Your task to perform on an android device: allow cookies in the chrome app Image 0: 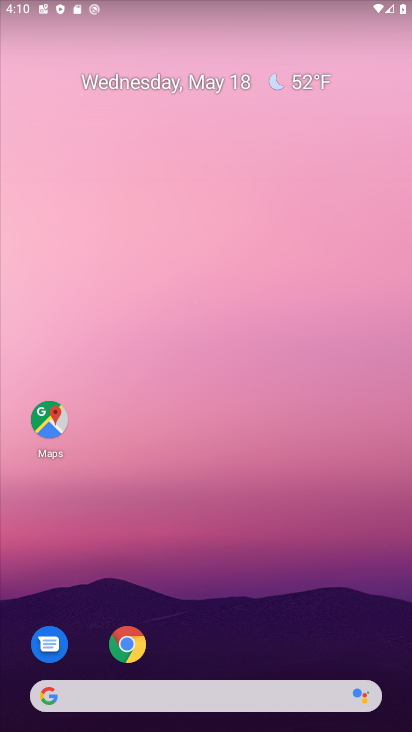
Step 0: click (135, 639)
Your task to perform on an android device: allow cookies in the chrome app Image 1: 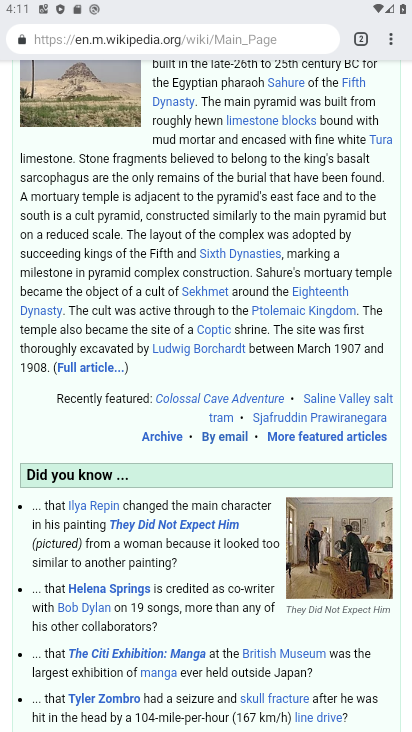
Step 1: click (387, 34)
Your task to perform on an android device: allow cookies in the chrome app Image 2: 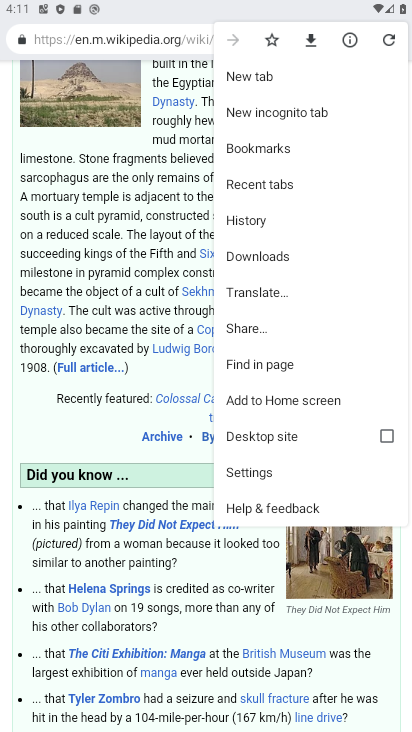
Step 2: click (222, 476)
Your task to perform on an android device: allow cookies in the chrome app Image 3: 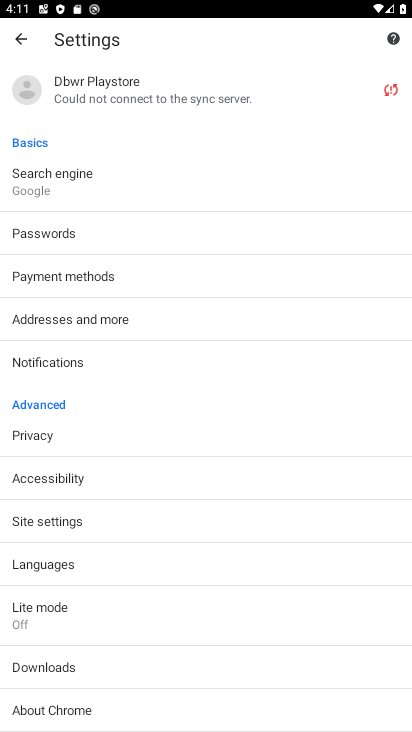
Step 3: drag from (152, 675) to (118, 250)
Your task to perform on an android device: allow cookies in the chrome app Image 4: 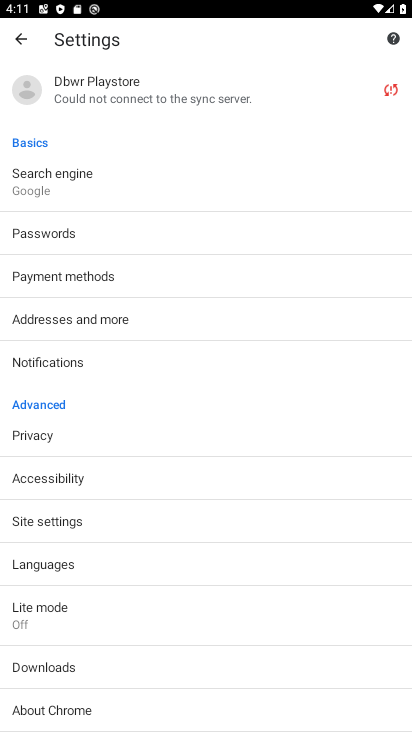
Step 4: click (83, 516)
Your task to perform on an android device: allow cookies in the chrome app Image 5: 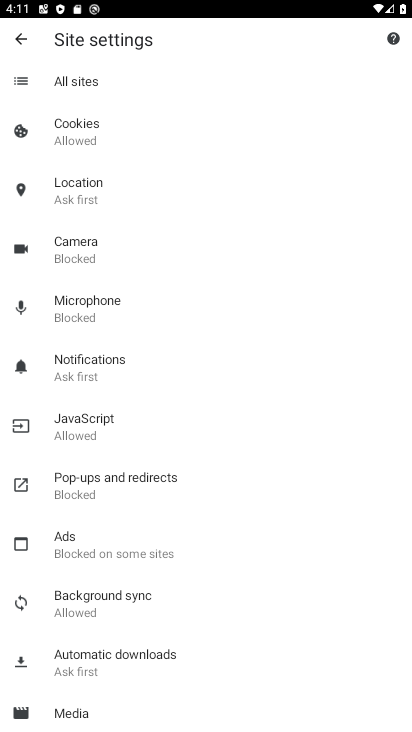
Step 5: click (67, 127)
Your task to perform on an android device: allow cookies in the chrome app Image 6: 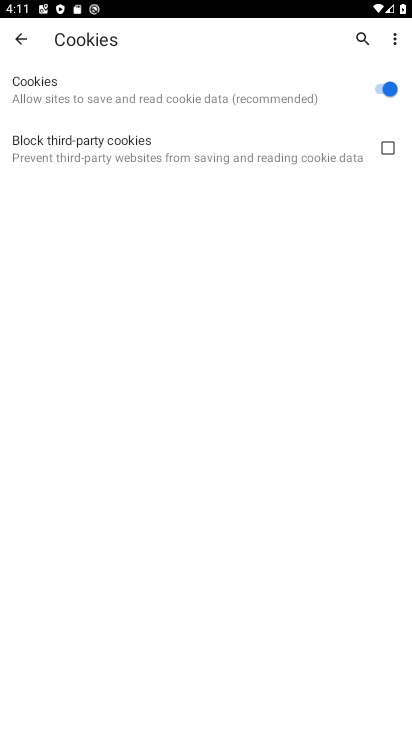
Step 6: task complete